Your task to perform on an android device: Open network settings Image 0: 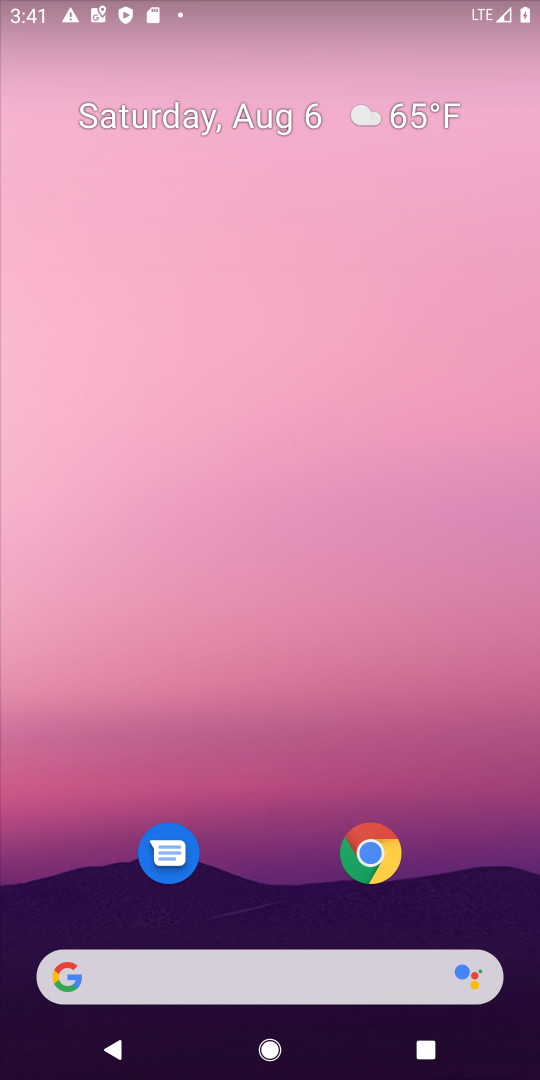
Step 0: drag from (260, 686) to (264, 78)
Your task to perform on an android device: Open network settings Image 1: 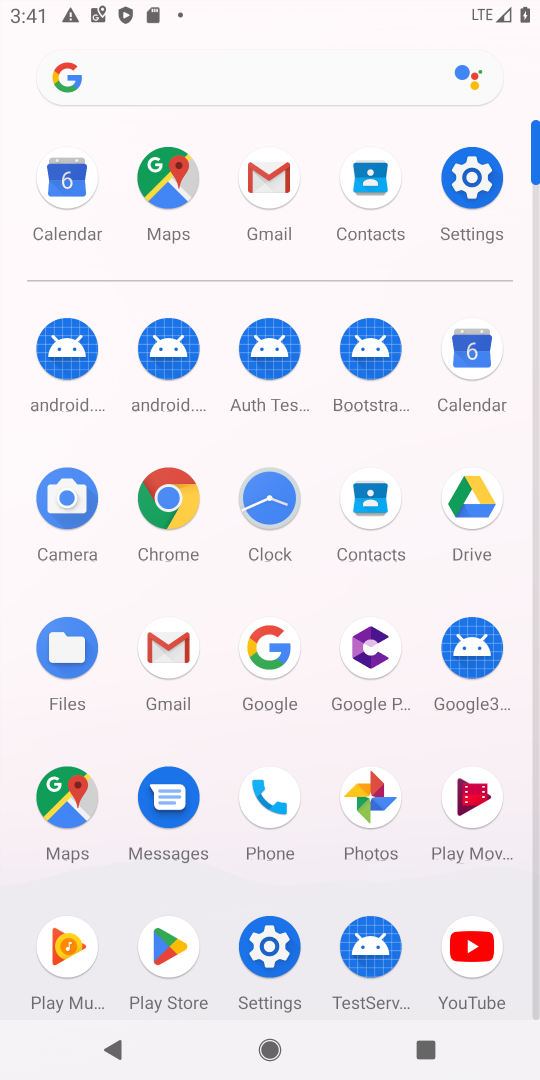
Step 1: click (462, 190)
Your task to perform on an android device: Open network settings Image 2: 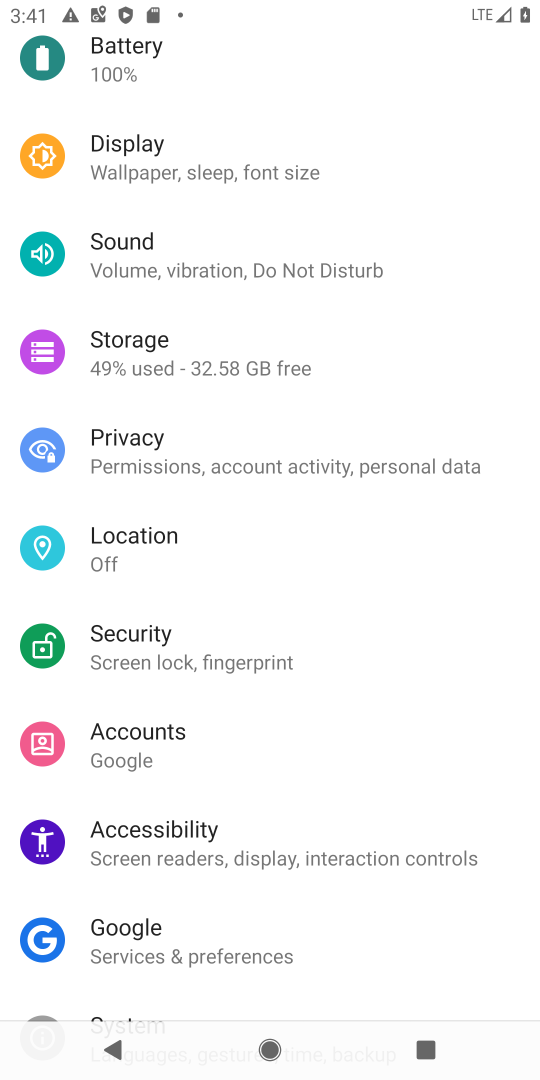
Step 2: drag from (338, 247) to (243, 1077)
Your task to perform on an android device: Open network settings Image 3: 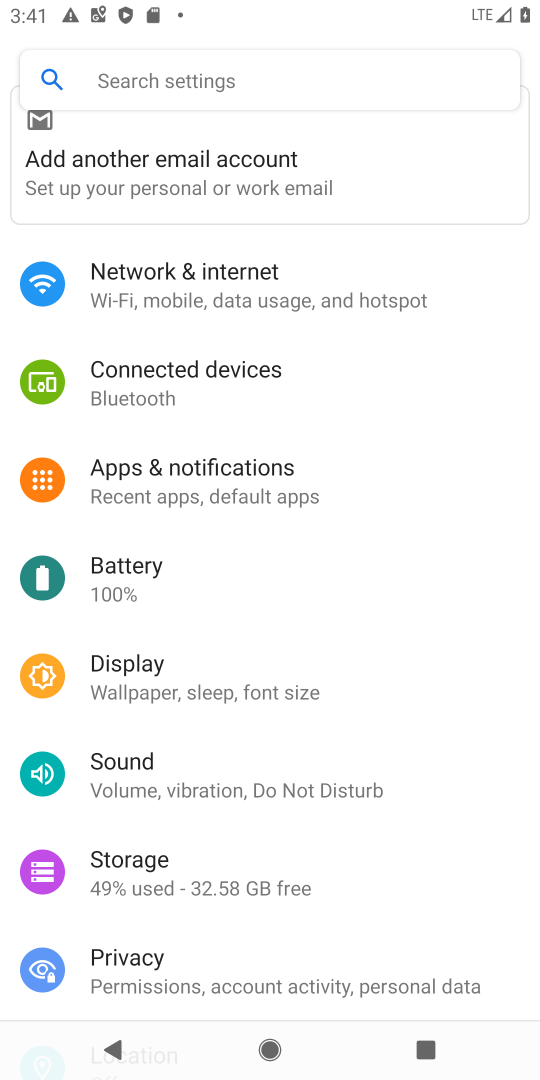
Step 3: click (202, 274)
Your task to perform on an android device: Open network settings Image 4: 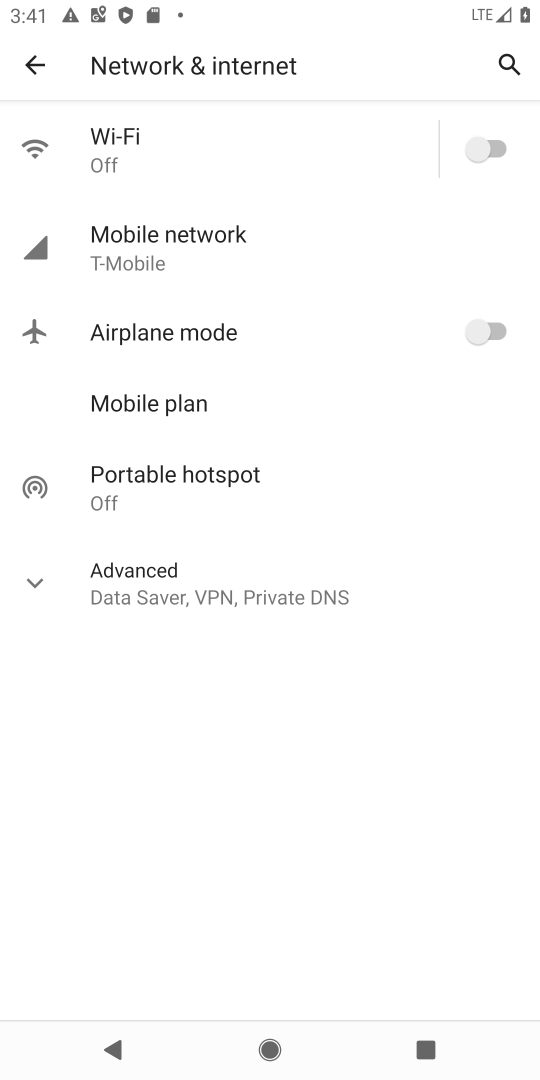
Step 4: task complete